Your task to perform on an android device: turn off notifications settings in the gmail app Image 0: 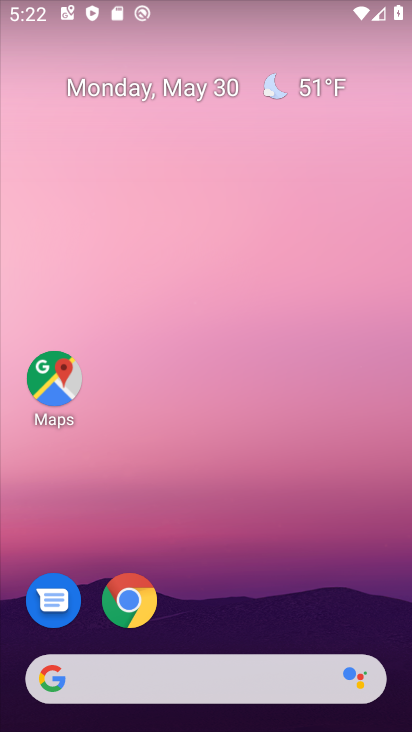
Step 0: drag from (311, 691) to (307, 347)
Your task to perform on an android device: turn off notifications settings in the gmail app Image 1: 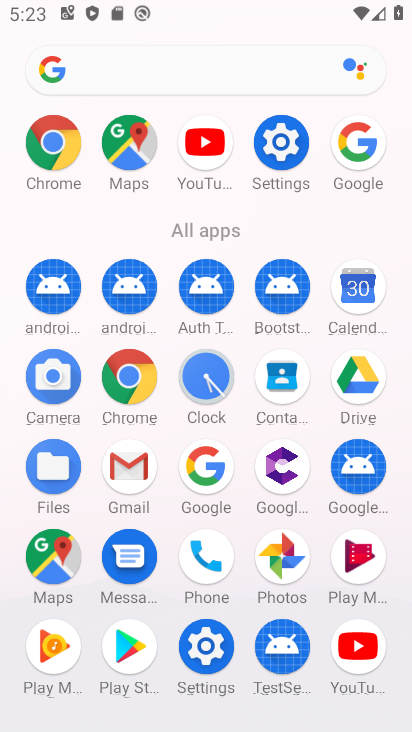
Step 1: click (130, 467)
Your task to perform on an android device: turn off notifications settings in the gmail app Image 2: 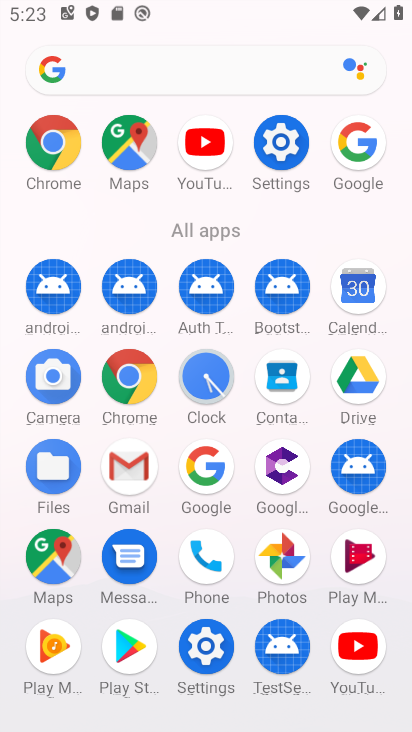
Step 2: click (130, 467)
Your task to perform on an android device: turn off notifications settings in the gmail app Image 3: 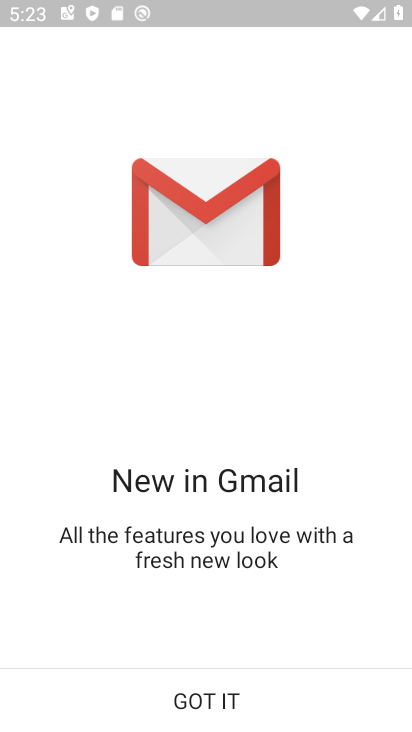
Step 3: click (222, 690)
Your task to perform on an android device: turn off notifications settings in the gmail app Image 4: 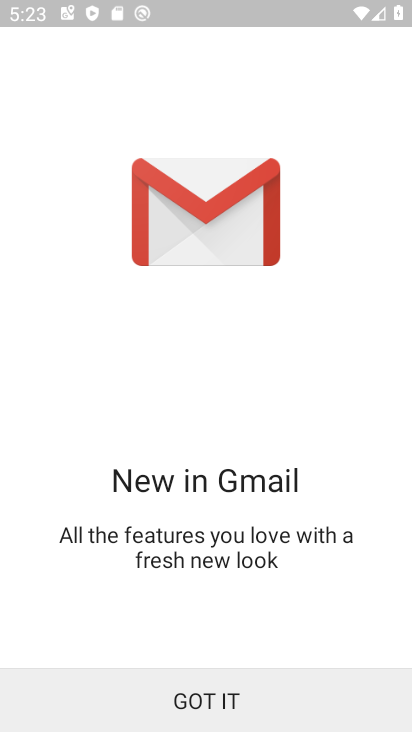
Step 4: click (222, 690)
Your task to perform on an android device: turn off notifications settings in the gmail app Image 5: 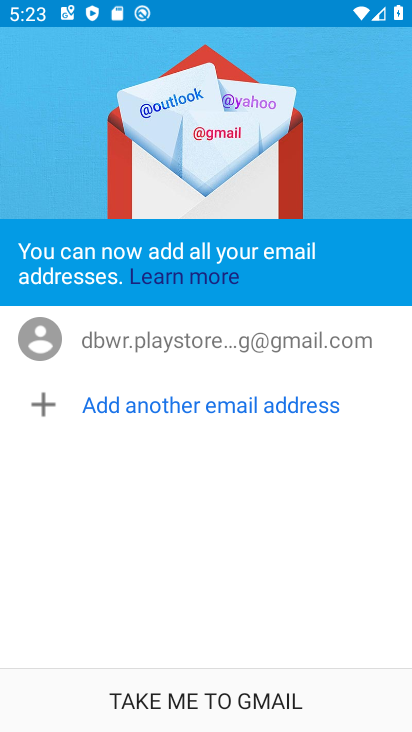
Step 5: click (209, 699)
Your task to perform on an android device: turn off notifications settings in the gmail app Image 6: 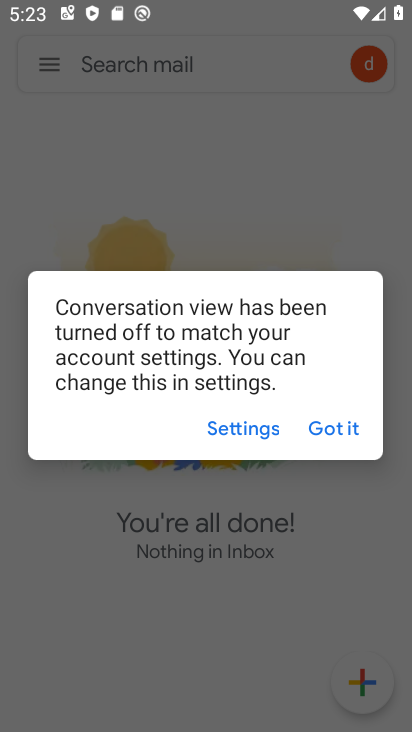
Step 6: click (312, 427)
Your task to perform on an android device: turn off notifications settings in the gmail app Image 7: 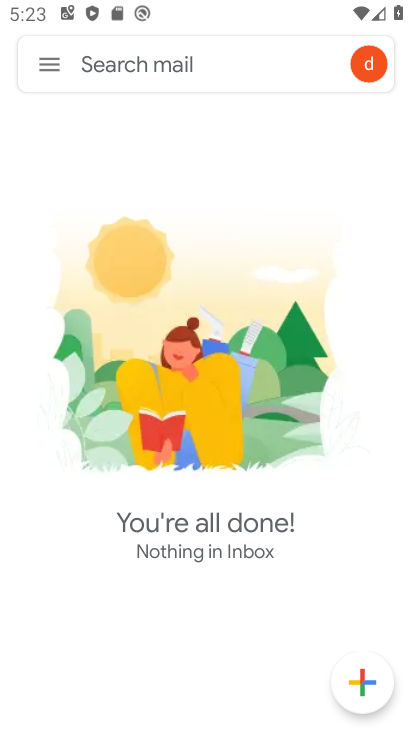
Step 7: click (42, 62)
Your task to perform on an android device: turn off notifications settings in the gmail app Image 8: 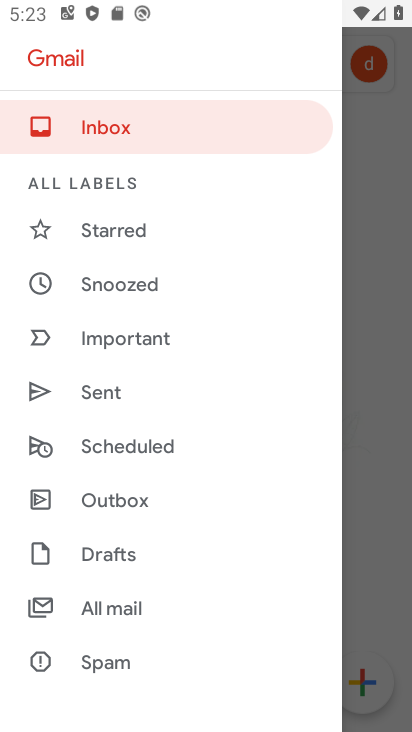
Step 8: drag from (140, 595) to (142, 230)
Your task to perform on an android device: turn off notifications settings in the gmail app Image 9: 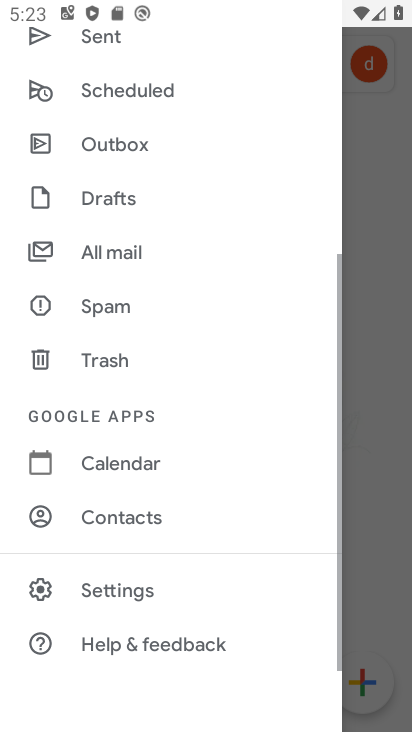
Step 9: drag from (139, 490) to (126, 84)
Your task to perform on an android device: turn off notifications settings in the gmail app Image 10: 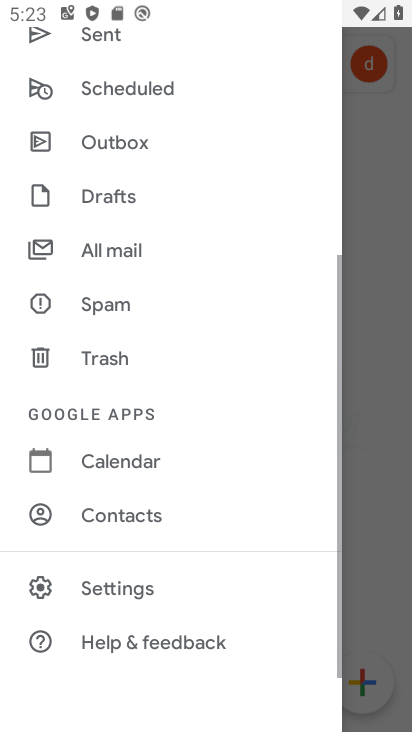
Step 10: click (107, 604)
Your task to perform on an android device: turn off notifications settings in the gmail app Image 11: 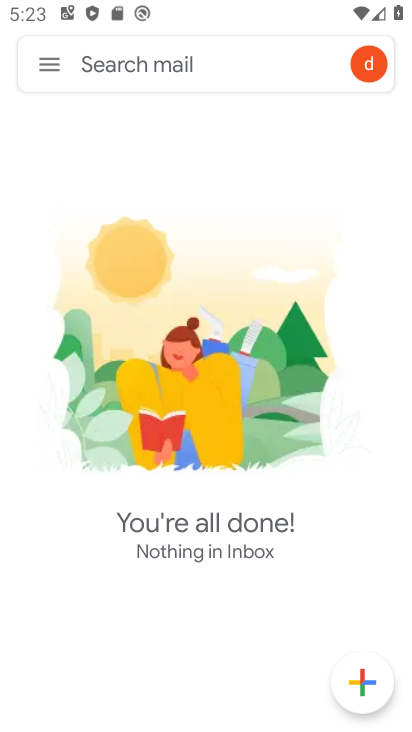
Step 11: click (121, 586)
Your task to perform on an android device: turn off notifications settings in the gmail app Image 12: 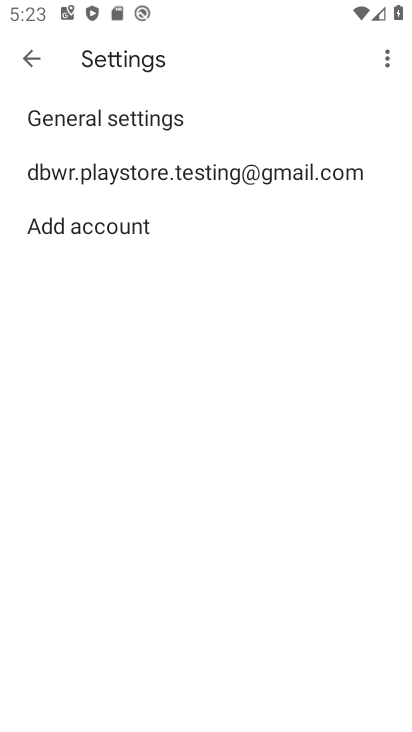
Step 12: click (110, 169)
Your task to perform on an android device: turn off notifications settings in the gmail app Image 13: 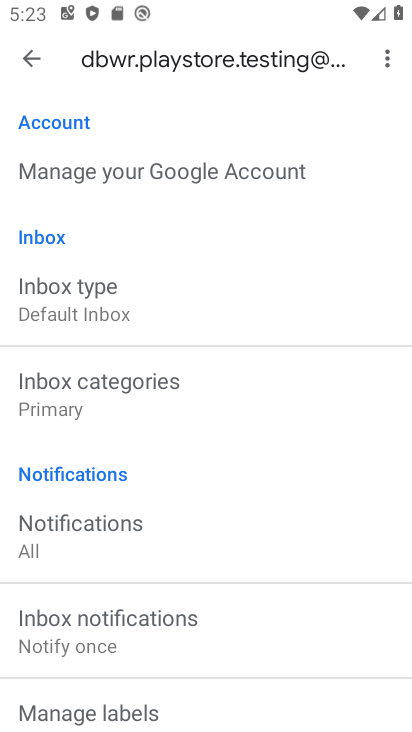
Step 13: click (69, 513)
Your task to perform on an android device: turn off notifications settings in the gmail app Image 14: 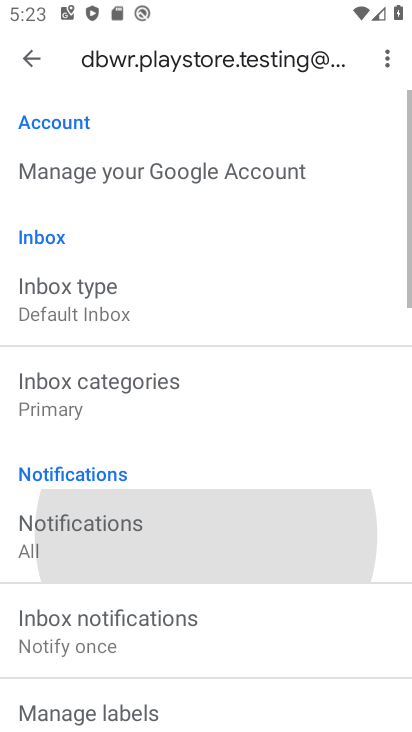
Step 14: click (71, 513)
Your task to perform on an android device: turn off notifications settings in the gmail app Image 15: 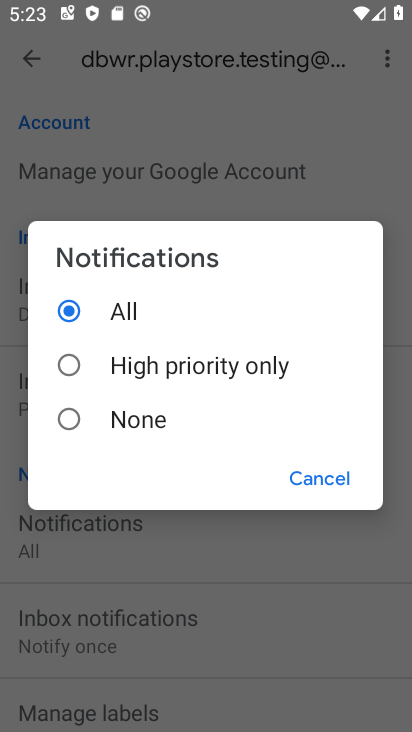
Step 15: click (327, 476)
Your task to perform on an android device: turn off notifications settings in the gmail app Image 16: 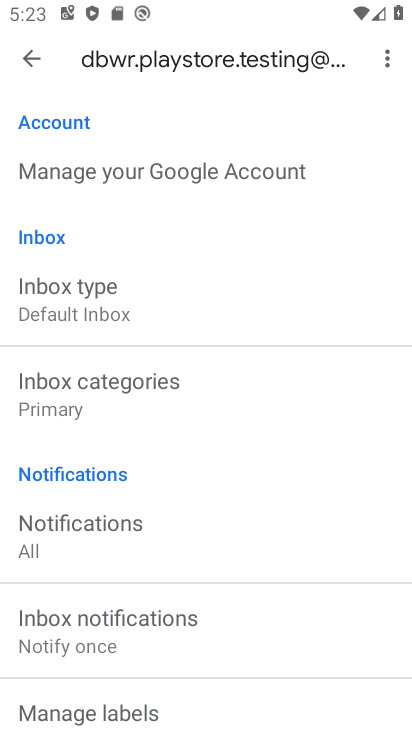
Step 16: click (325, 478)
Your task to perform on an android device: turn off notifications settings in the gmail app Image 17: 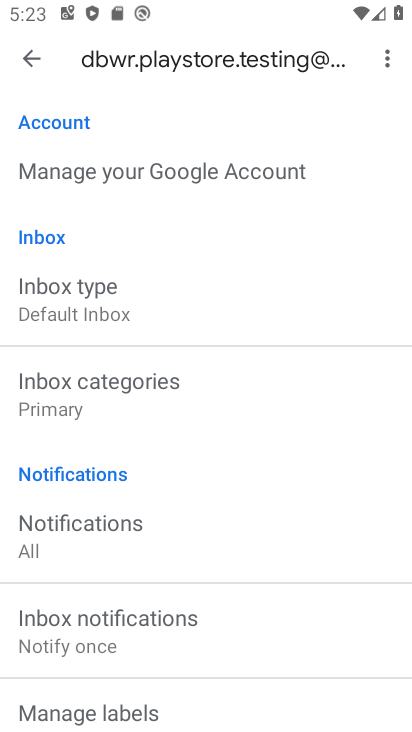
Step 17: click (48, 513)
Your task to perform on an android device: turn off notifications settings in the gmail app Image 18: 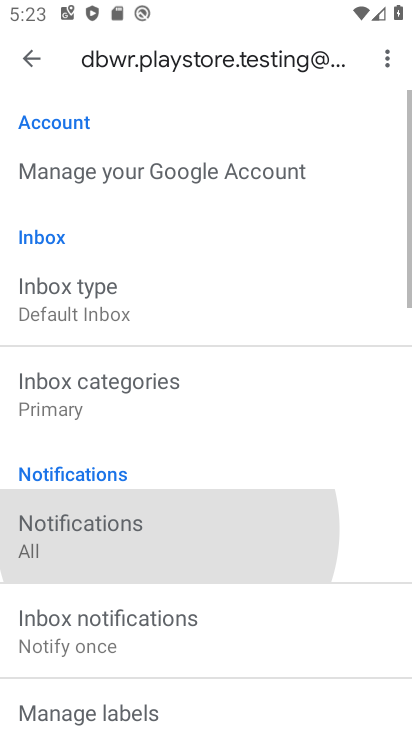
Step 18: click (62, 505)
Your task to perform on an android device: turn off notifications settings in the gmail app Image 19: 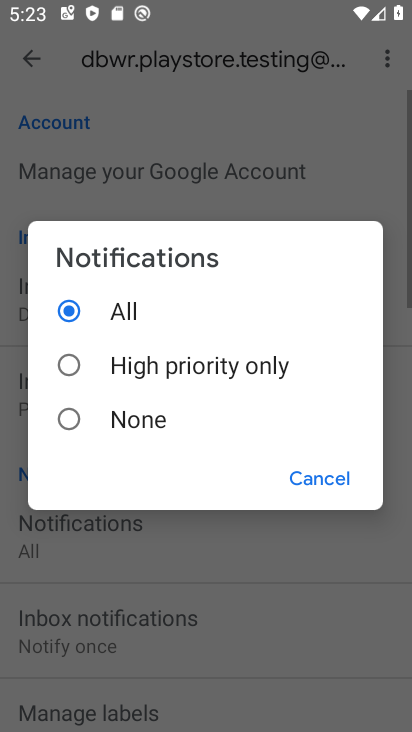
Step 19: click (63, 351)
Your task to perform on an android device: turn off notifications settings in the gmail app Image 20: 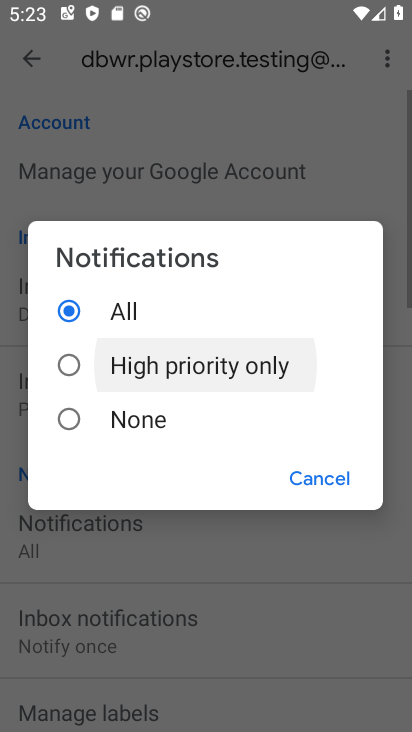
Step 20: click (65, 355)
Your task to perform on an android device: turn off notifications settings in the gmail app Image 21: 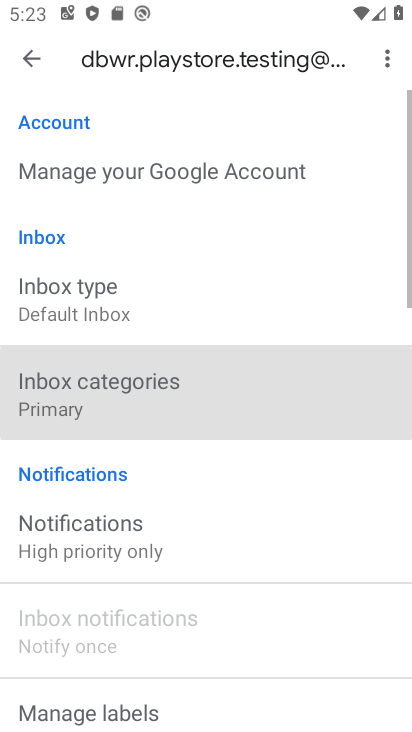
Step 21: click (71, 354)
Your task to perform on an android device: turn off notifications settings in the gmail app Image 22: 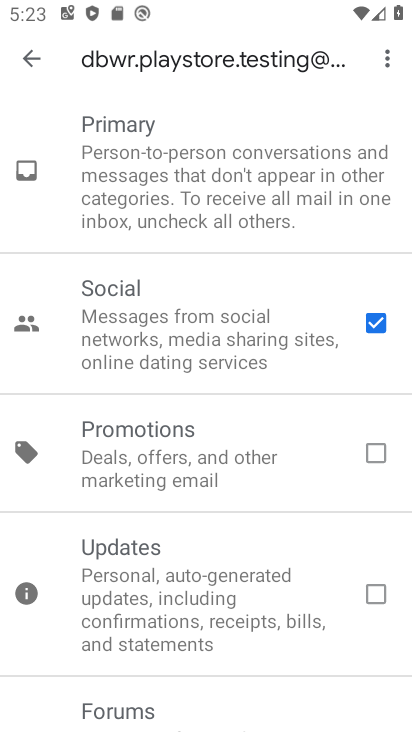
Step 22: task complete